Your task to perform on an android device: stop showing notifications on the lock screen Image 0: 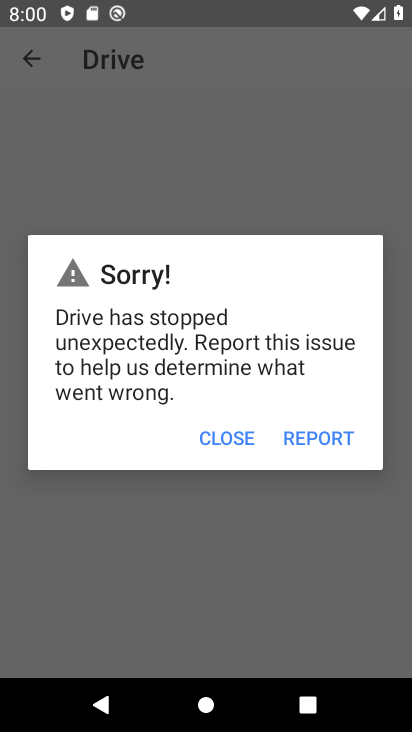
Step 0: task complete